Your task to perform on an android device: turn off sleep mode Image 0: 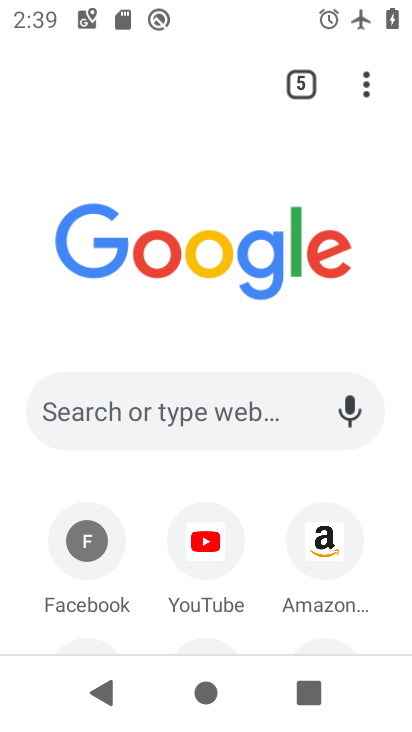
Step 0: press home button
Your task to perform on an android device: turn off sleep mode Image 1: 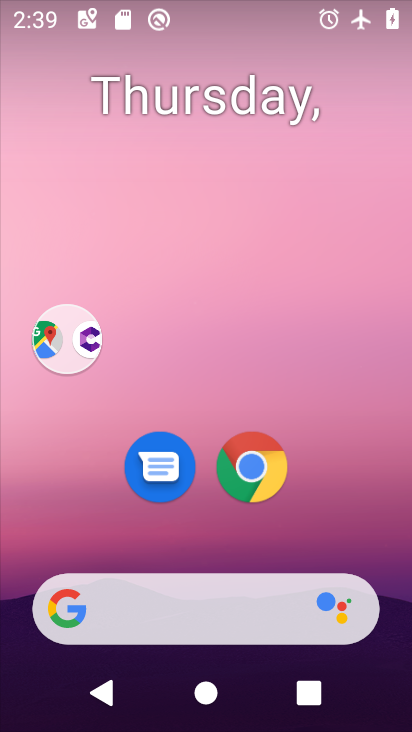
Step 1: drag from (211, 548) to (249, 13)
Your task to perform on an android device: turn off sleep mode Image 2: 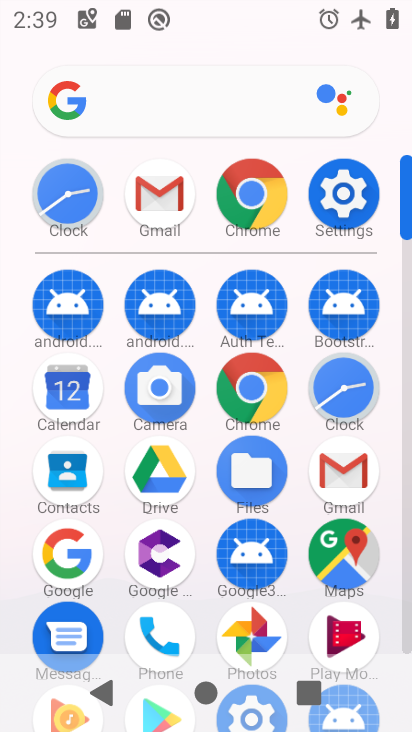
Step 2: click (333, 191)
Your task to perform on an android device: turn off sleep mode Image 3: 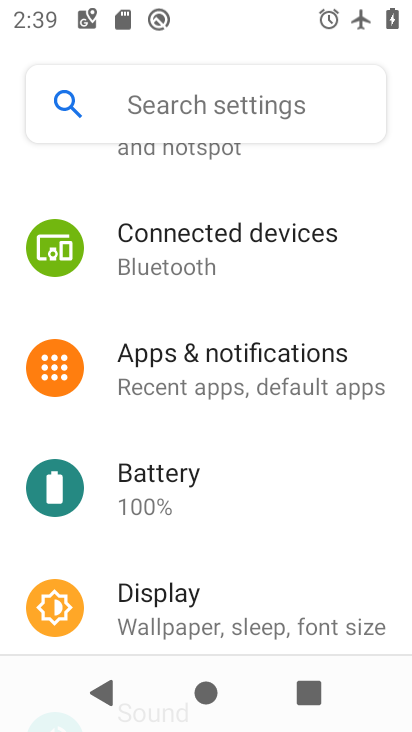
Step 3: click (152, 583)
Your task to perform on an android device: turn off sleep mode Image 4: 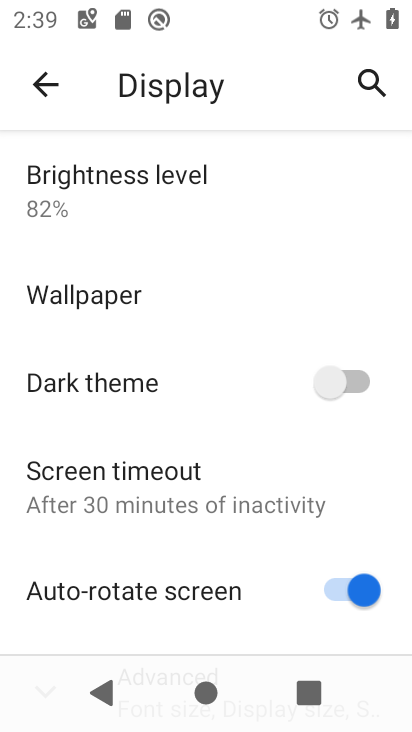
Step 4: task complete